Your task to perform on an android device: turn off data saver in the chrome app Image 0: 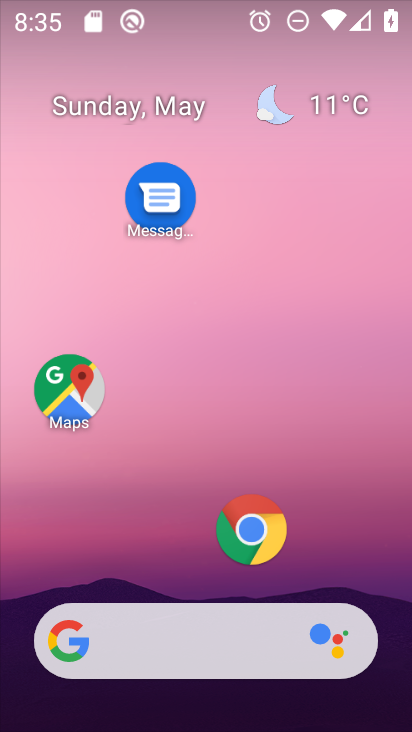
Step 0: click (257, 517)
Your task to perform on an android device: turn off data saver in the chrome app Image 1: 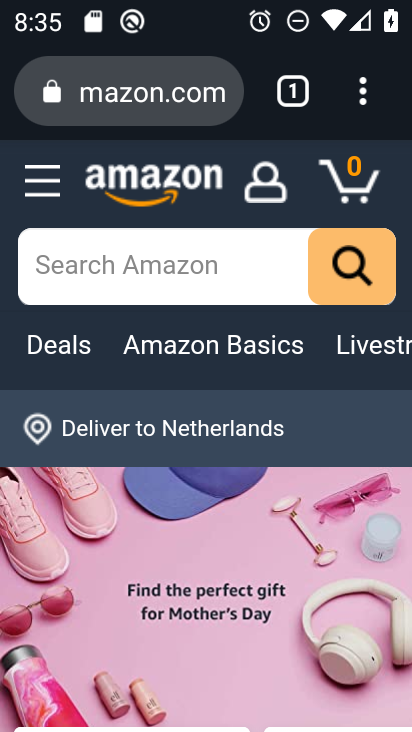
Step 1: click (358, 83)
Your task to perform on an android device: turn off data saver in the chrome app Image 2: 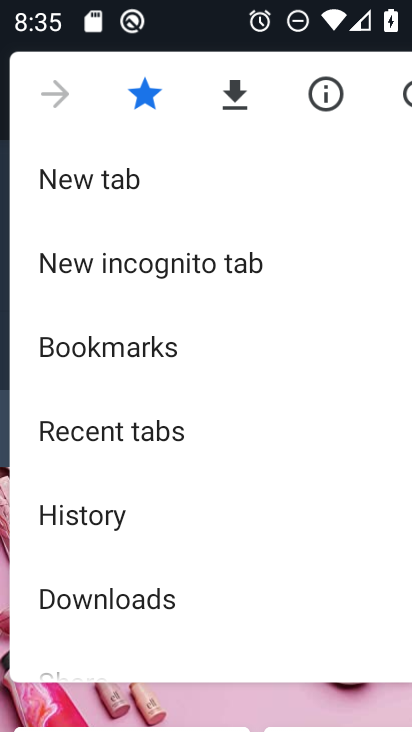
Step 2: drag from (203, 623) to (250, 86)
Your task to perform on an android device: turn off data saver in the chrome app Image 3: 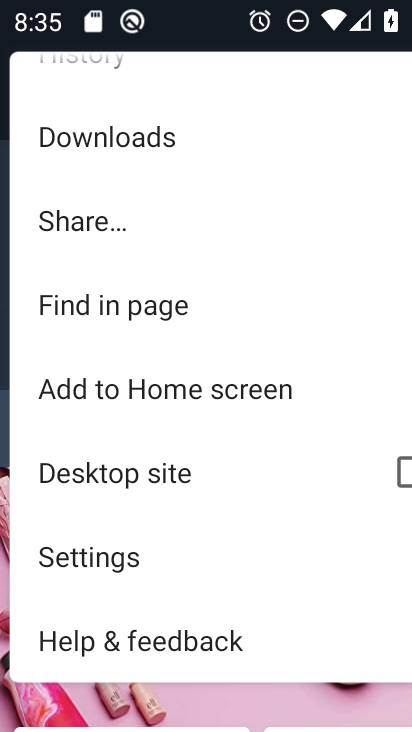
Step 3: click (149, 551)
Your task to perform on an android device: turn off data saver in the chrome app Image 4: 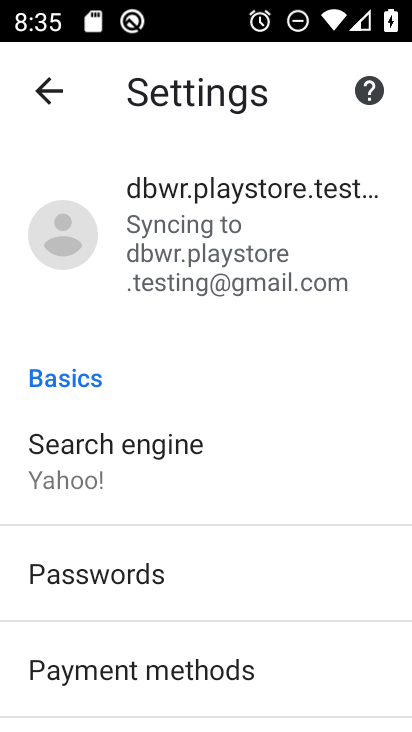
Step 4: drag from (273, 676) to (348, 103)
Your task to perform on an android device: turn off data saver in the chrome app Image 5: 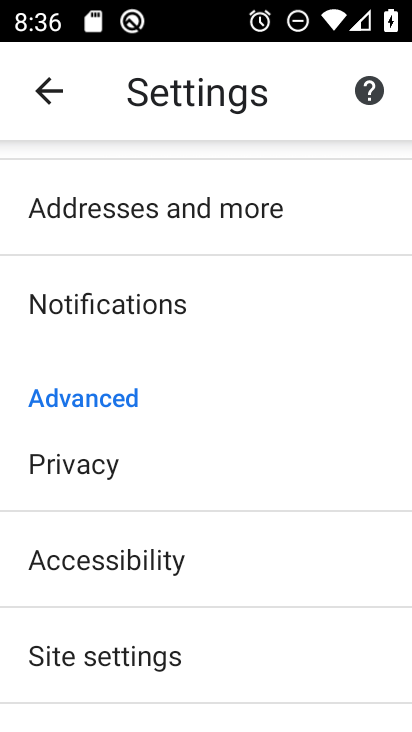
Step 5: drag from (217, 644) to (276, 159)
Your task to perform on an android device: turn off data saver in the chrome app Image 6: 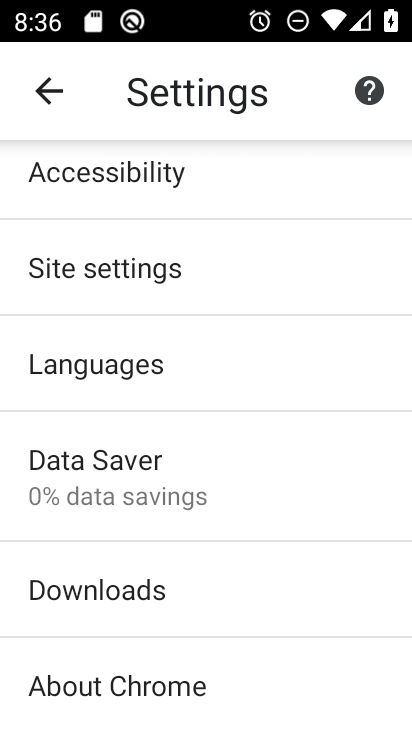
Step 6: click (228, 476)
Your task to perform on an android device: turn off data saver in the chrome app Image 7: 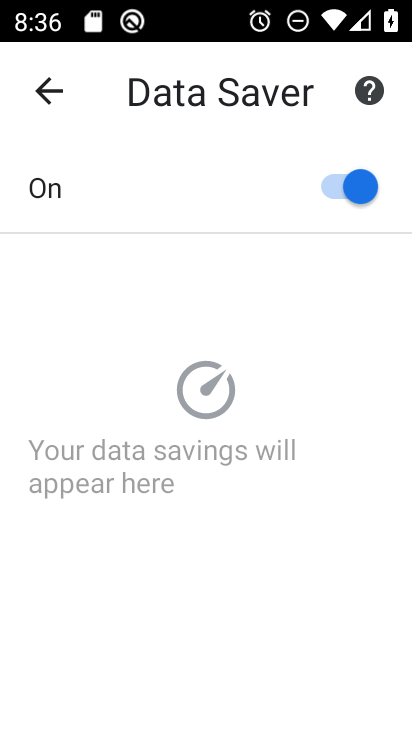
Step 7: click (334, 184)
Your task to perform on an android device: turn off data saver in the chrome app Image 8: 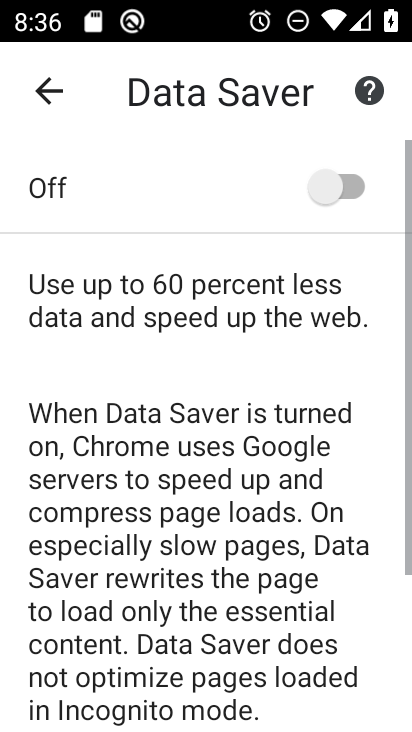
Step 8: task complete